Your task to perform on an android device: When is my next meeting? Image 0: 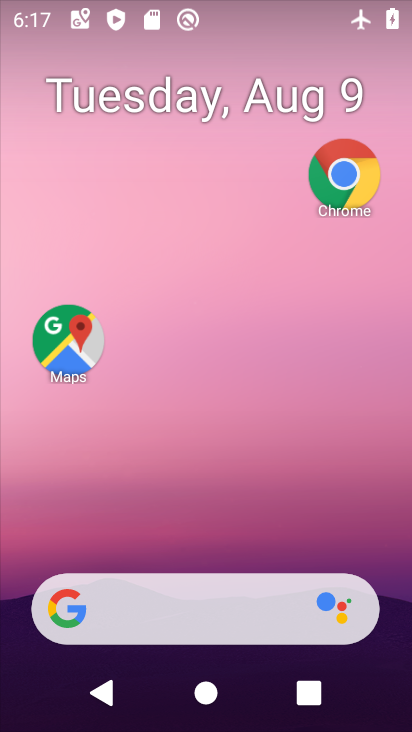
Step 0: drag from (194, 514) to (254, 193)
Your task to perform on an android device: When is my next meeting? Image 1: 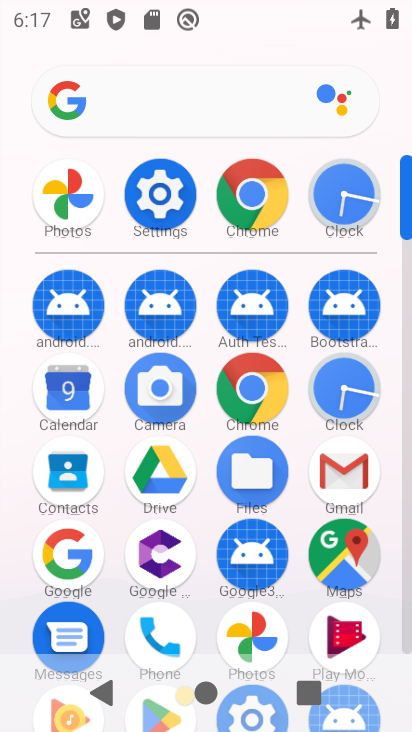
Step 1: drag from (214, 605) to (213, 238)
Your task to perform on an android device: When is my next meeting? Image 2: 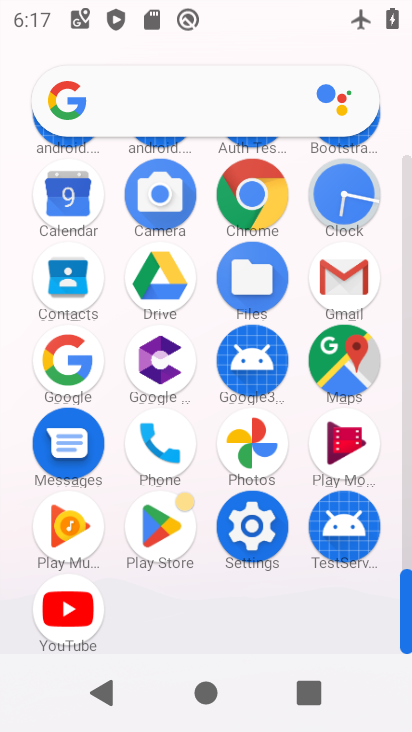
Step 2: click (241, 522)
Your task to perform on an android device: When is my next meeting? Image 3: 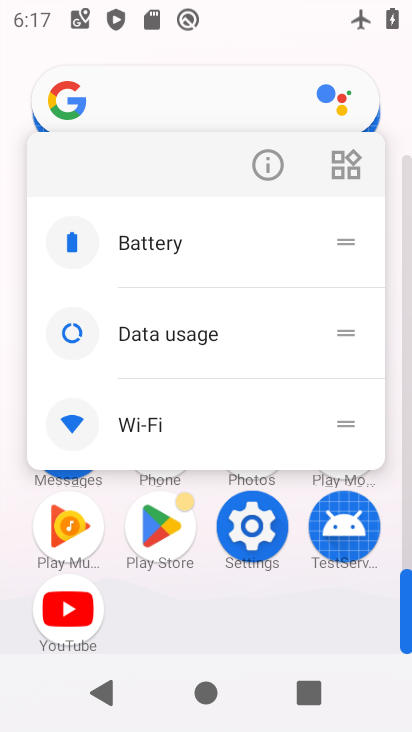
Step 3: click (275, 164)
Your task to perform on an android device: When is my next meeting? Image 4: 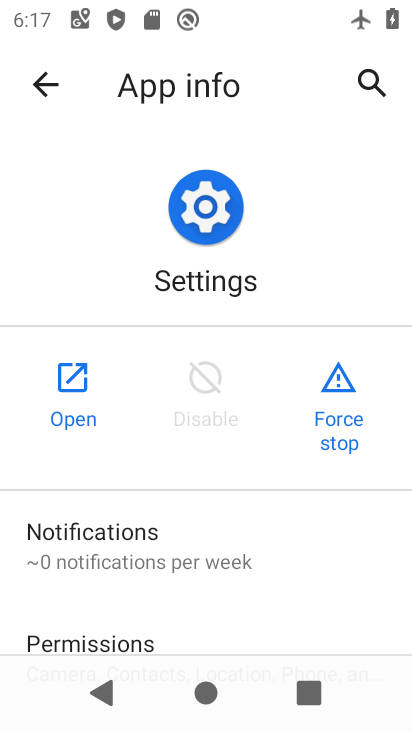
Step 4: click (89, 381)
Your task to perform on an android device: When is my next meeting? Image 5: 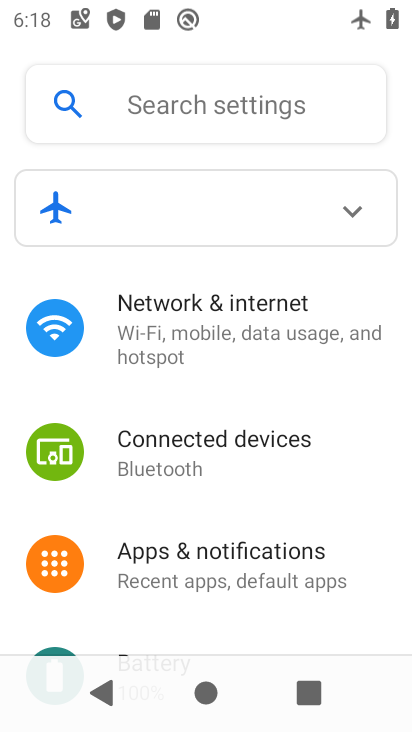
Step 5: drag from (204, 601) to (262, 142)
Your task to perform on an android device: When is my next meeting? Image 6: 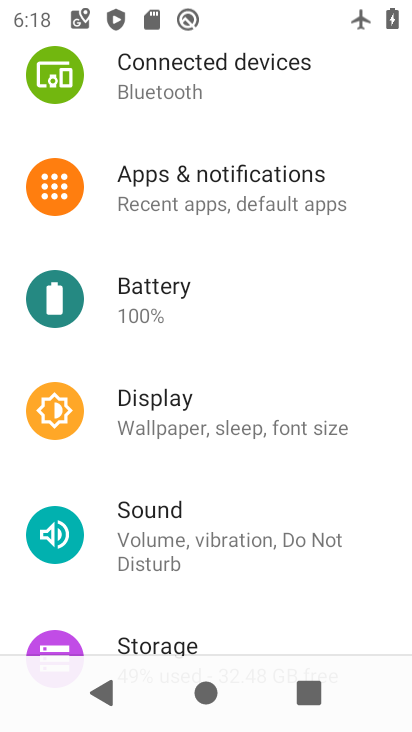
Step 6: drag from (210, 576) to (286, 207)
Your task to perform on an android device: When is my next meeting? Image 7: 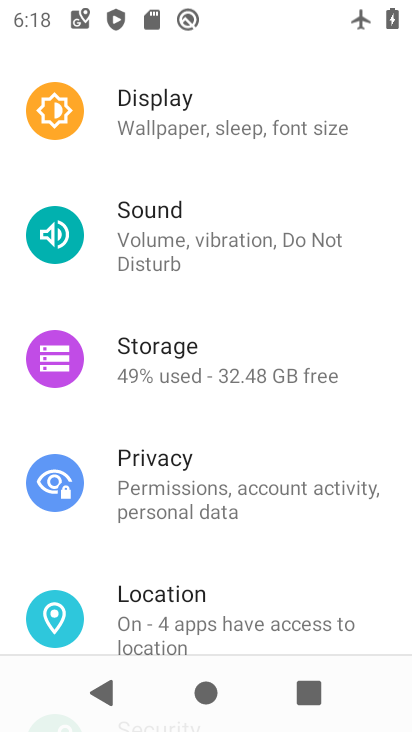
Step 7: drag from (204, 288) to (197, 715)
Your task to perform on an android device: When is my next meeting? Image 8: 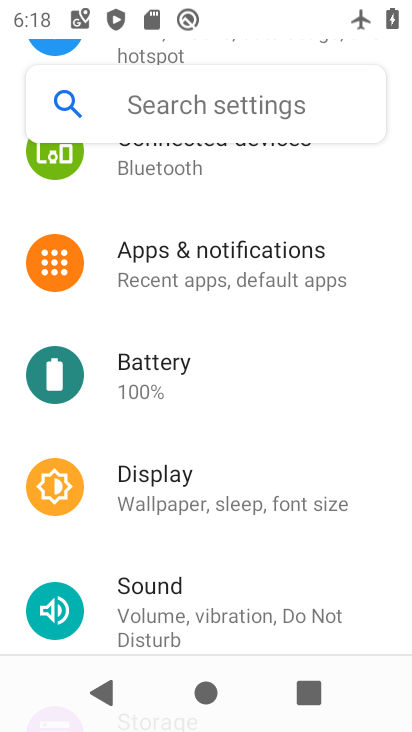
Step 8: press home button
Your task to perform on an android device: When is my next meeting? Image 9: 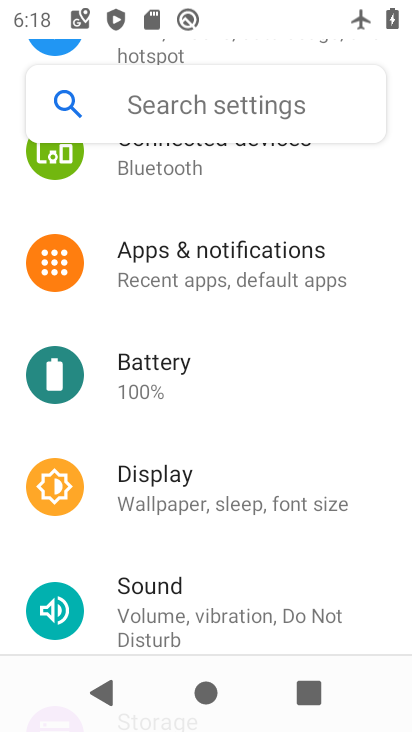
Step 9: drag from (250, 578) to (252, 53)
Your task to perform on an android device: When is my next meeting? Image 10: 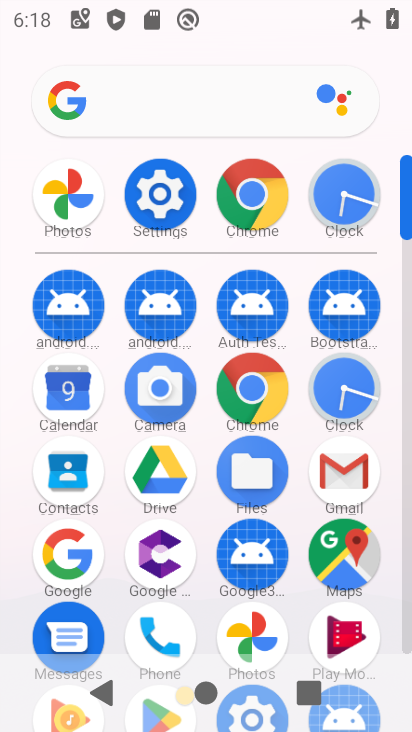
Step 10: click (57, 398)
Your task to perform on an android device: When is my next meeting? Image 11: 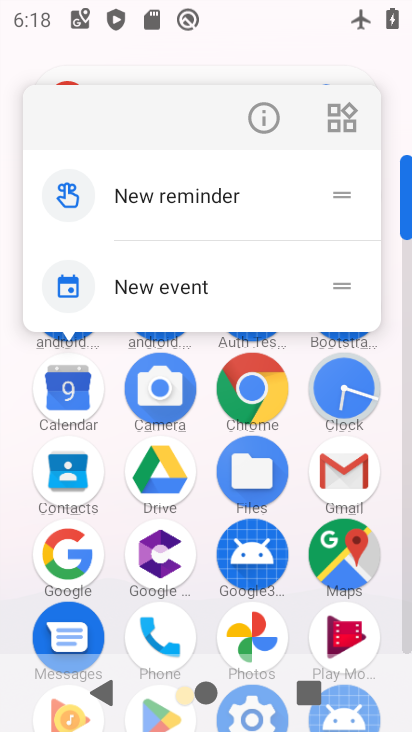
Step 11: click (251, 124)
Your task to perform on an android device: When is my next meeting? Image 12: 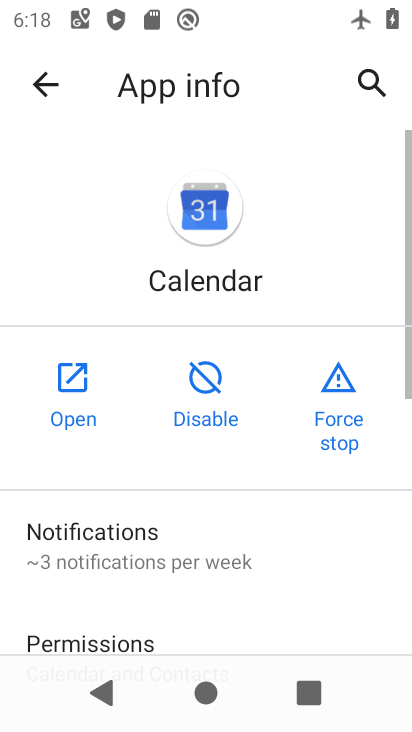
Step 12: click (68, 386)
Your task to perform on an android device: When is my next meeting? Image 13: 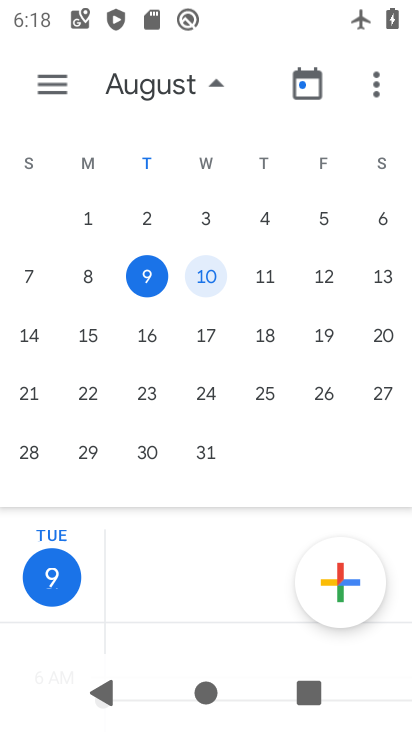
Step 13: click (210, 286)
Your task to perform on an android device: When is my next meeting? Image 14: 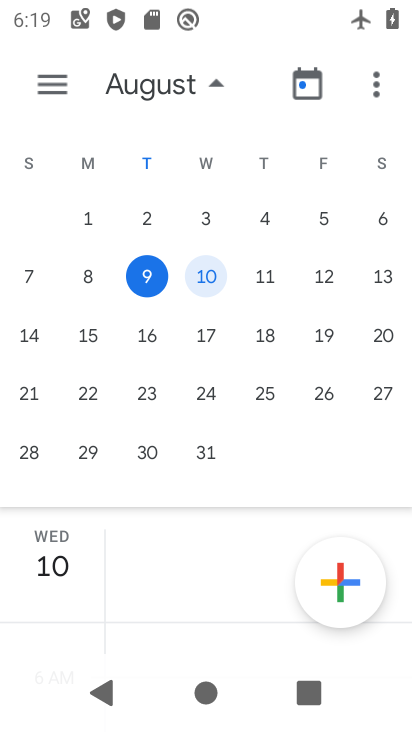
Step 14: click (153, 285)
Your task to perform on an android device: When is my next meeting? Image 15: 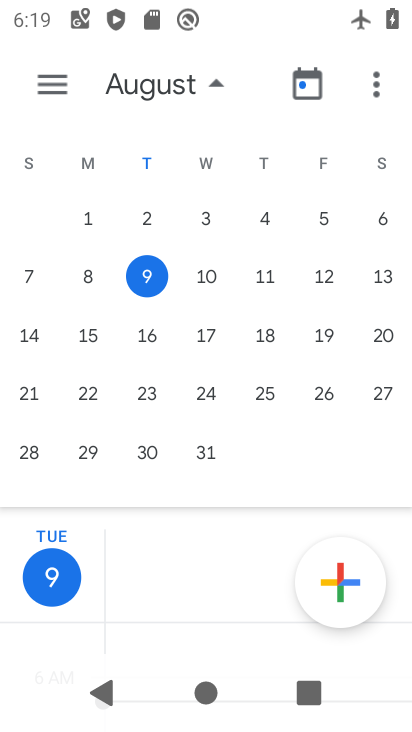
Step 15: task complete